Your task to perform on an android device: turn off smart reply in the gmail app Image 0: 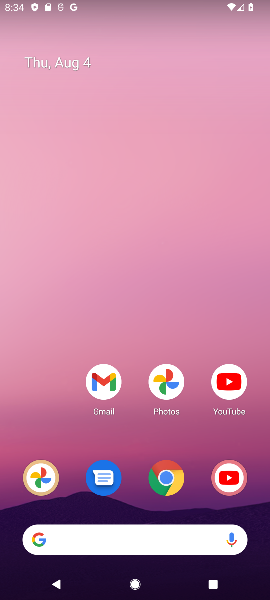
Step 0: drag from (165, 528) to (146, 93)
Your task to perform on an android device: turn off smart reply in the gmail app Image 1: 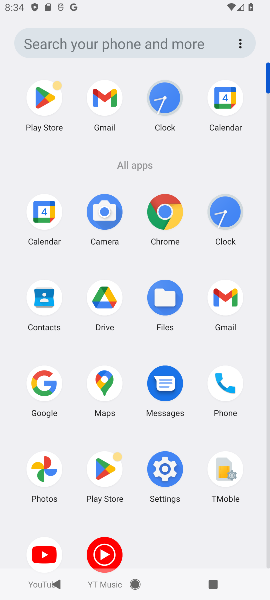
Step 1: click (219, 278)
Your task to perform on an android device: turn off smart reply in the gmail app Image 2: 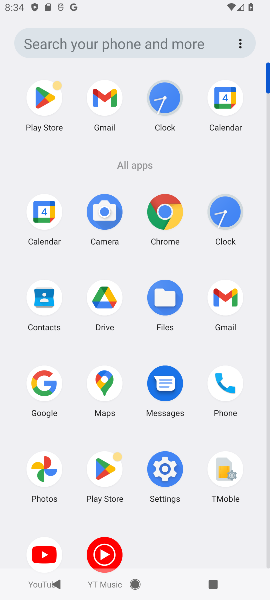
Step 2: click (224, 291)
Your task to perform on an android device: turn off smart reply in the gmail app Image 3: 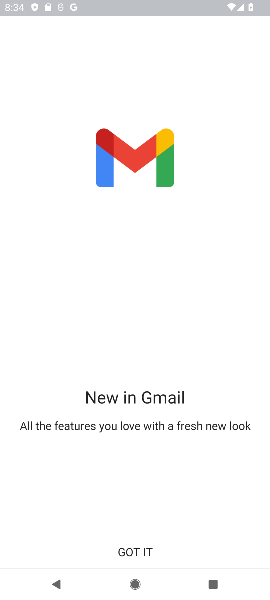
Step 3: click (150, 548)
Your task to perform on an android device: turn off smart reply in the gmail app Image 4: 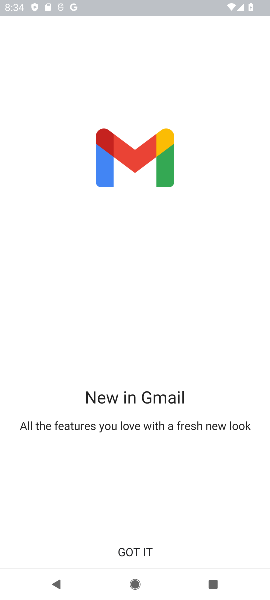
Step 4: click (150, 548)
Your task to perform on an android device: turn off smart reply in the gmail app Image 5: 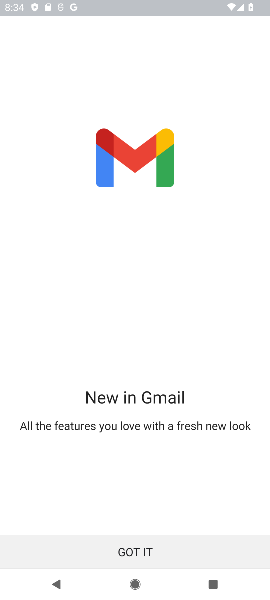
Step 5: click (150, 548)
Your task to perform on an android device: turn off smart reply in the gmail app Image 6: 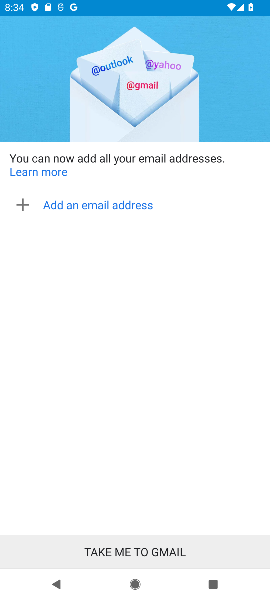
Step 6: click (150, 548)
Your task to perform on an android device: turn off smart reply in the gmail app Image 7: 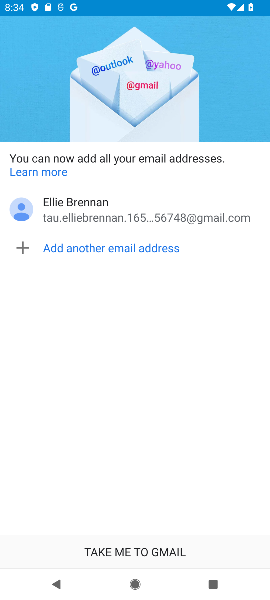
Step 7: click (168, 537)
Your task to perform on an android device: turn off smart reply in the gmail app Image 8: 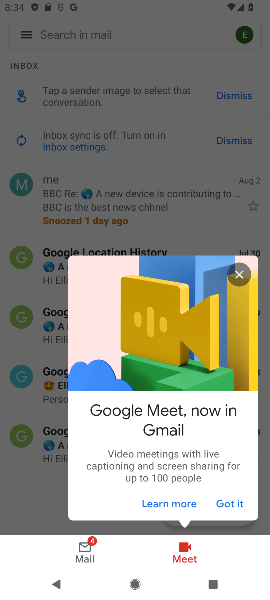
Step 8: click (241, 275)
Your task to perform on an android device: turn off smart reply in the gmail app Image 9: 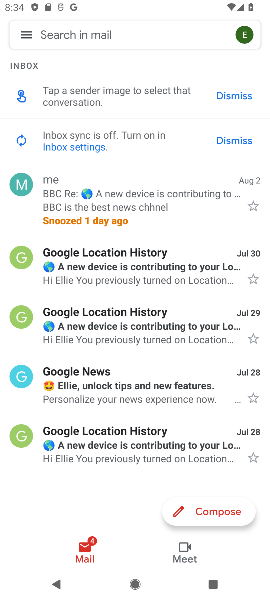
Step 9: click (21, 30)
Your task to perform on an android device: turn off smart reply in the gmail app Image 10: 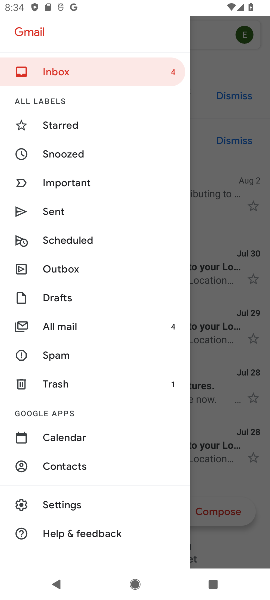
Step 10: click (59, 507)
Your task to perform on an android device: turn off smart reply in the gmail app Image 11: 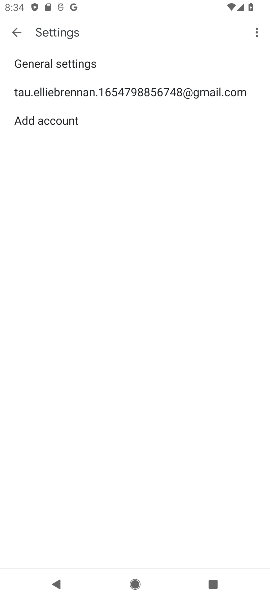
Step 11: click (105, 100)
Your task to perform on an android device: turn off smart reply in the gmail app Image 12: 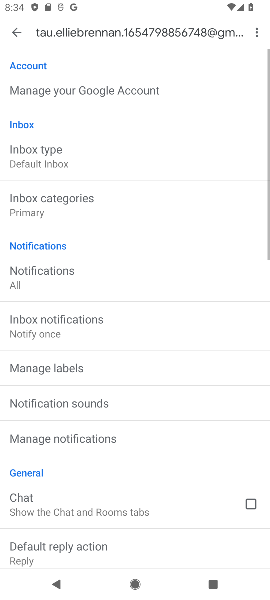
Step 12: drag from (145, 456) to (134, 37)
Your task to perform on an android device: turn off smart reply in the gmail app Image 13: 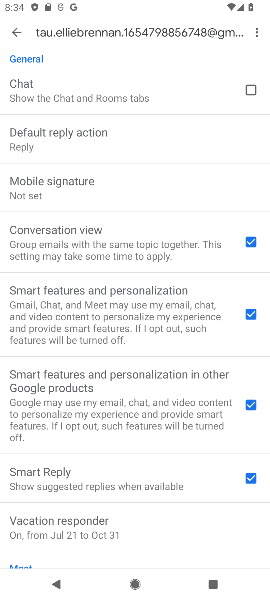
Step 13: drag from (160, 524) to (148, 126)
Your task to perform on an android device: turn off smart reply in the gmail app Image 14: 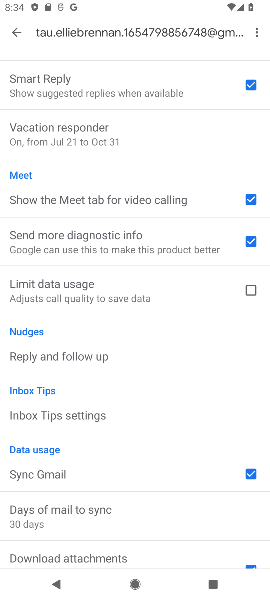
Step 14: drag from (163, 527) to (149, 312)
Your task to perform on an android device: turn off smart reply in the gmail app Image 15: 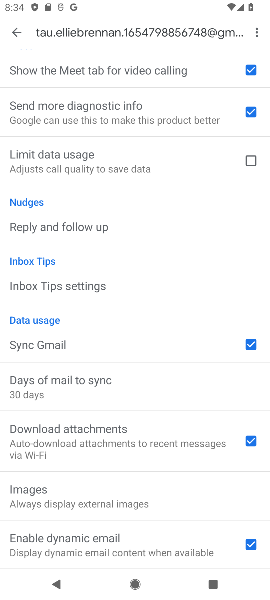
Step 15: drag from (112, 452) to (153, 595)
Your task to perform on an android device: turn off smart reply in the gmail app Image 16: 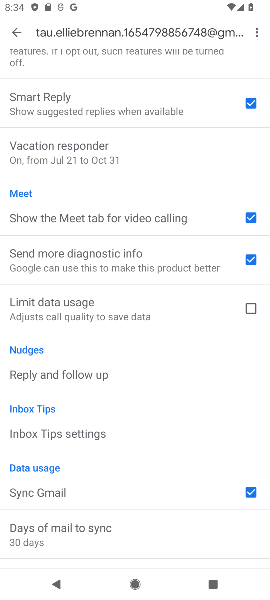
Step 16: drag from (124, 158) to (151, 299)
Your task to perform on an android device: turn off smart reply in the gmail app Image 17: 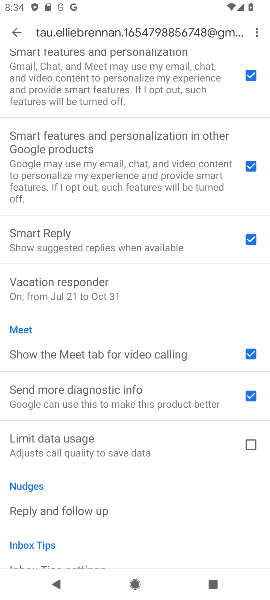
Step 17: click (57, 247)
Your task to perform on an android device: turn off smart reply in the gmail app Image 18: 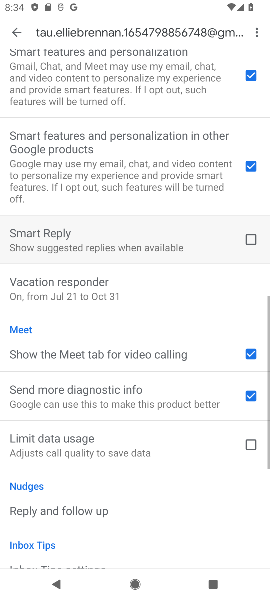
Step 18: task complete